Your task to perform on an android device: snooze an email in the gmail app Image 0: 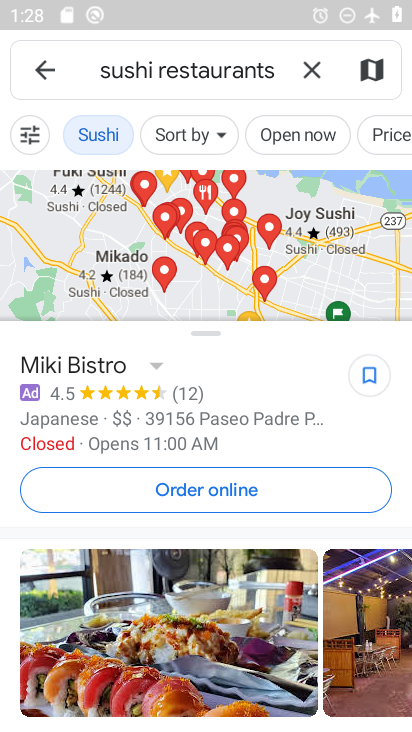
Step 0: press home button
Your task to perform on an android device: snooze an email in the gmail app Image 1: 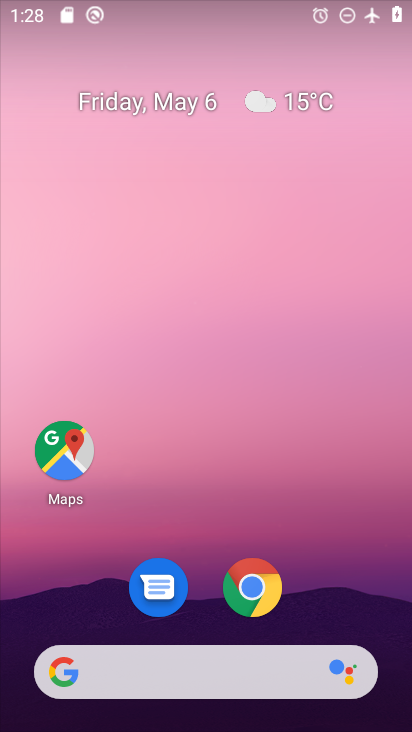
Step 1: drag from (325, 578) to (263, 37)
Your task to perform on an android device: snooze an email in the gmail app Image 2: 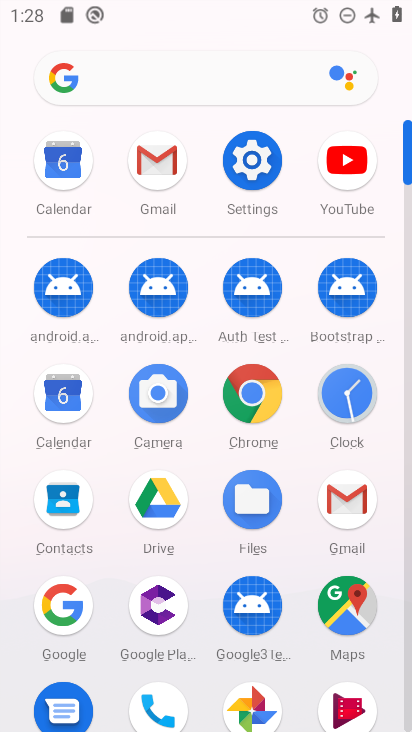
Step 2: click (350, 495)
Your task to perform on an android device: snooze an email in the gmail app Image 3: 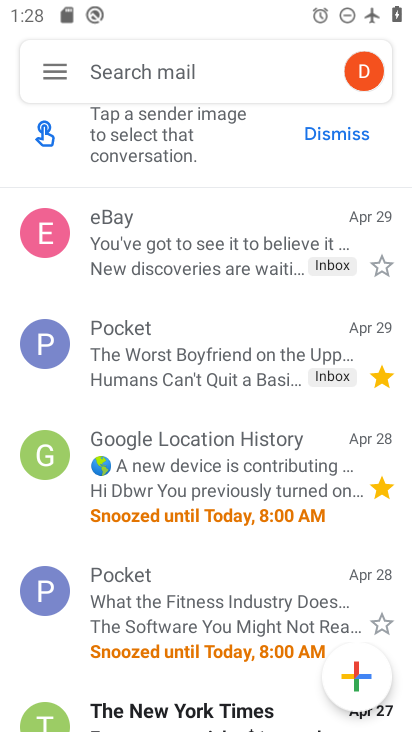
Step 3: click (191, 250)
Your task to perform on an android device: snooze an email in the gmail app Image 4: 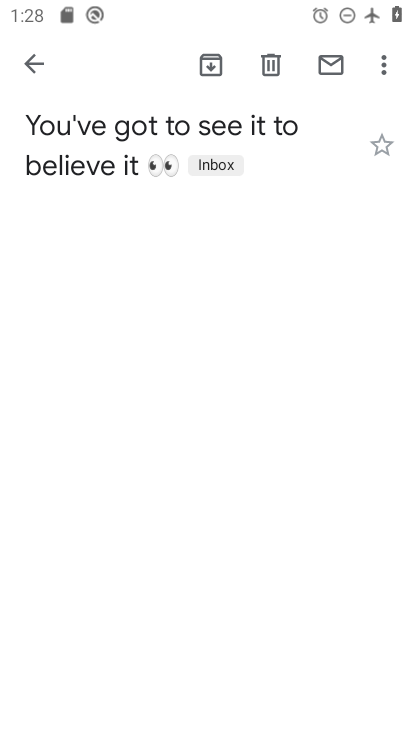
Step 4: click (383, 60)
Your task to perform on an android device: snooze an email in the gmail app Image 5: 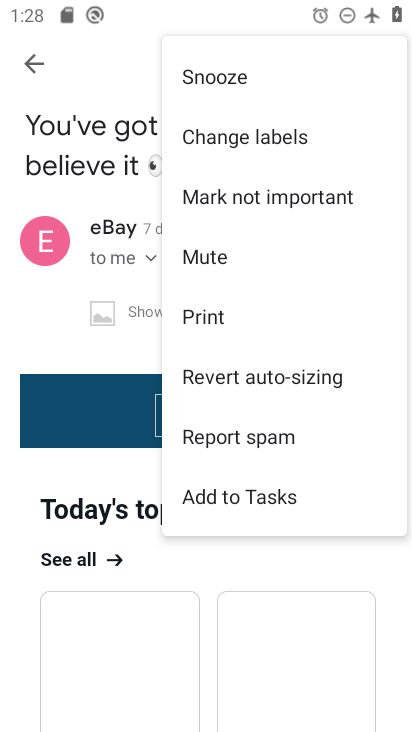
Step 5: click (234, 73)
Your task to perform on an android device: snooze an email in the gmail app Image 6: 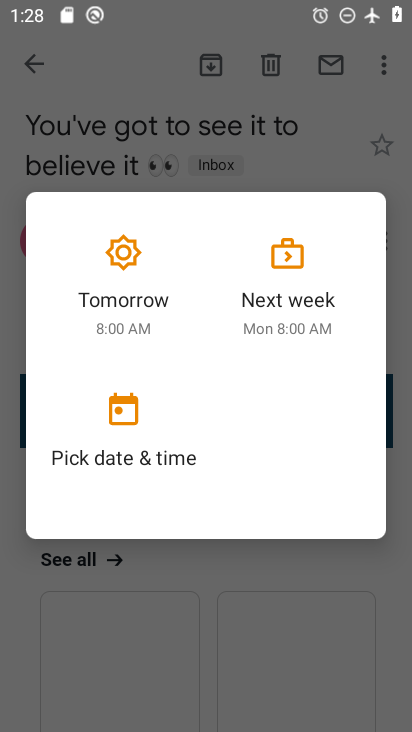
Step 6: click (286, 299)
Your task to perform on an android device: snooze an email in the gmail app Image 7: 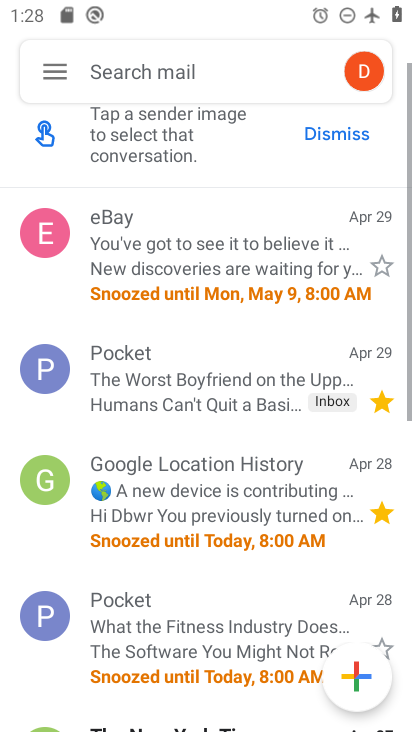
Step 7: task complete